Your task to perform on an android device: Go to accessibility settings Image 0: 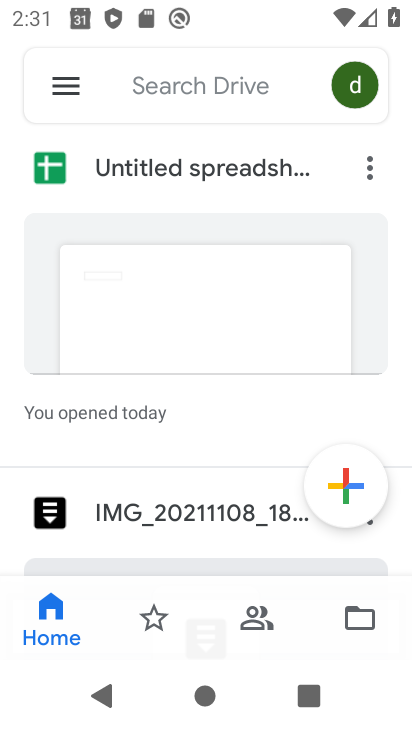
Step 0: press home button
Your task to perform on an android device: Go to accessibility settings Image 1: 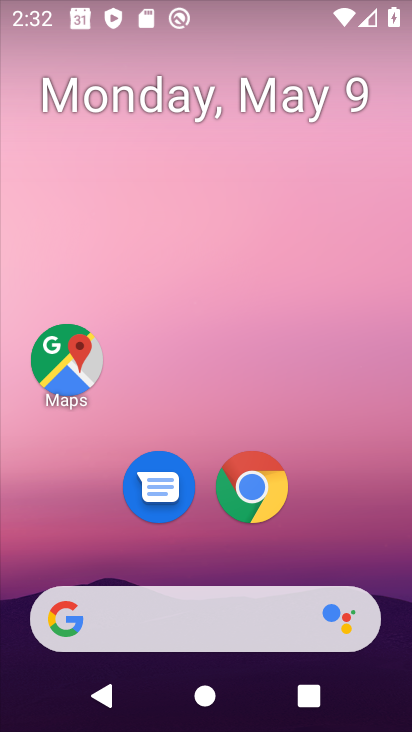
Step 1: drag from (289, 545) to (302, 0)
Your task to perform on an android device: Go to accessibility settings Image 2: 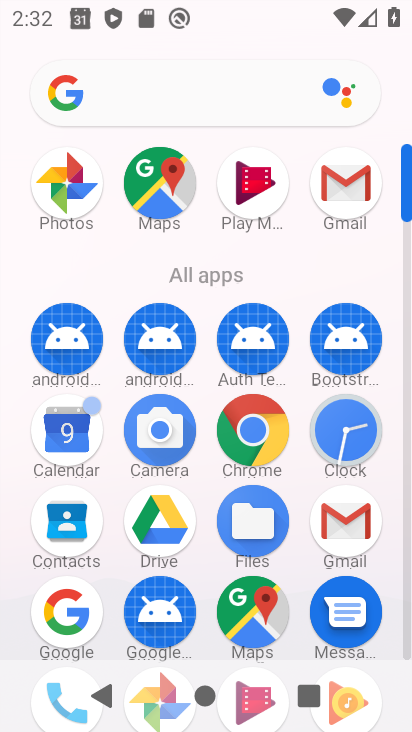
Step 2: drag from (303, 555) to (302, 177)
Your task to perform on an android device: Go to accessibility settings Image 3: 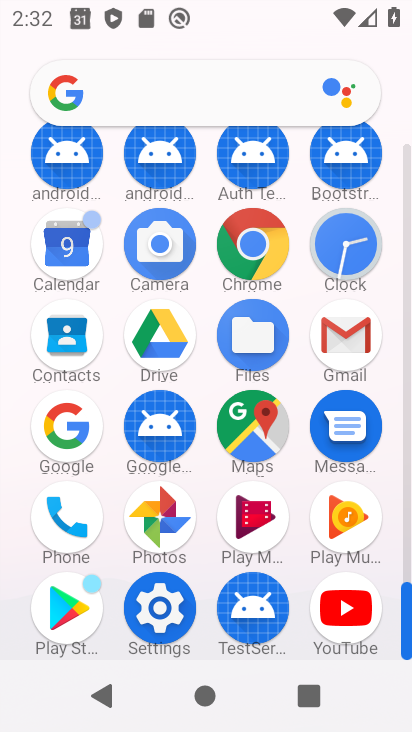
Step 3: click (169, 611)
Your task to perform on an android device: Go to accessibility settings Image 4: 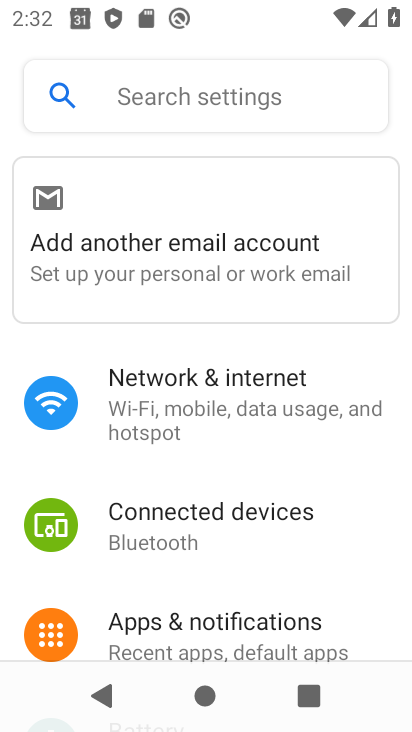
Step 4: drag from (295, 609) to (288, 449)
Your task to perform on an android device: Go to accessibility settings Image 5: 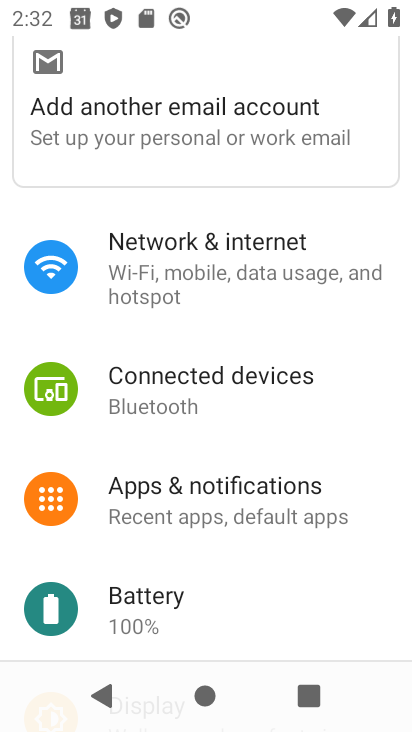
Step 5: drag from (218, 585) to (220, 433)
Your task to perform on an android device: Go to accessibility settings Image 6: 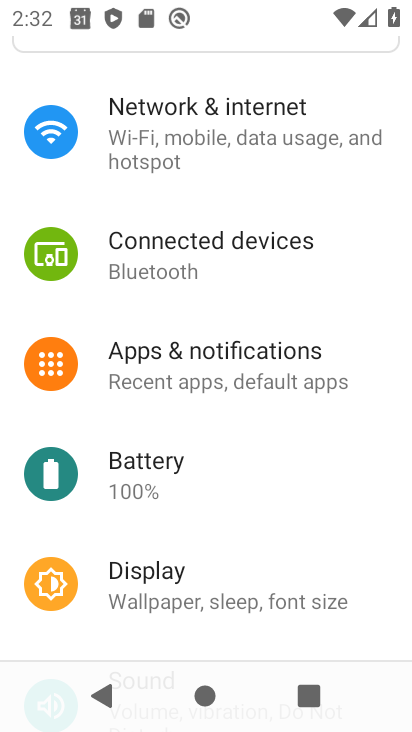
Step 6: drag from (189, 553) to (201, 466)
Your task to perform on an android device: Go to accessibility settings Image 7: 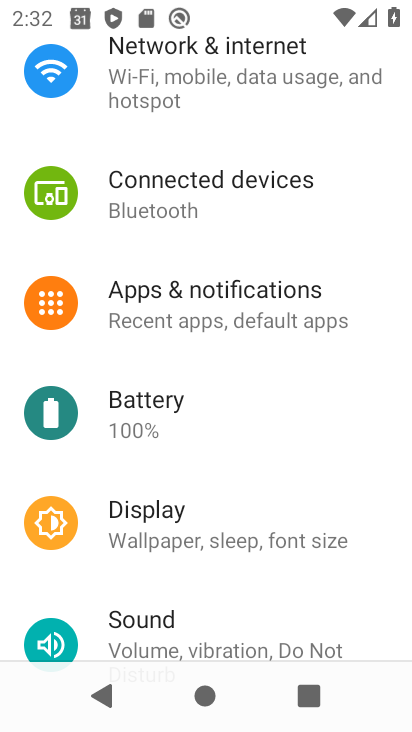
Step 7: drag from (210, 546) to (249, 366)
Your task to perform on an android device: Go to accessibility settings Image 8: 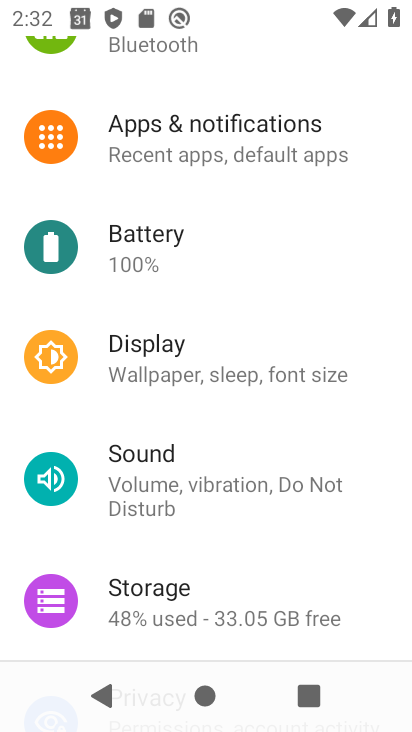
Step 8: drag from (250, 568) to (258, 455)
Your task to perform on an android device: Go to accessibility settings Image 9: 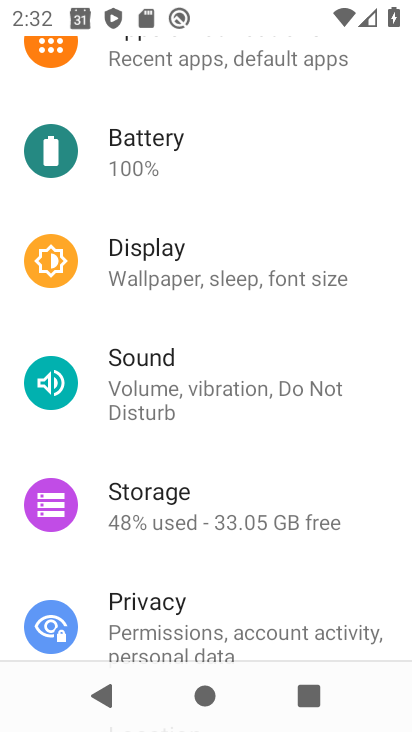
Step 9: drag from (278, 560) to (277, 457)
Your task to perform on an android device: Go to accessibility settings Image 10: 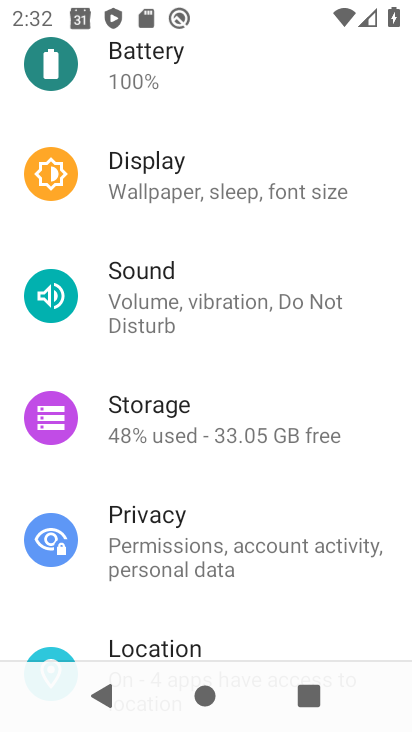
Step 10: drag from (252, 579) to (276, 437)
Your task to perform on an android device: Go to accessibility settings Image 11: 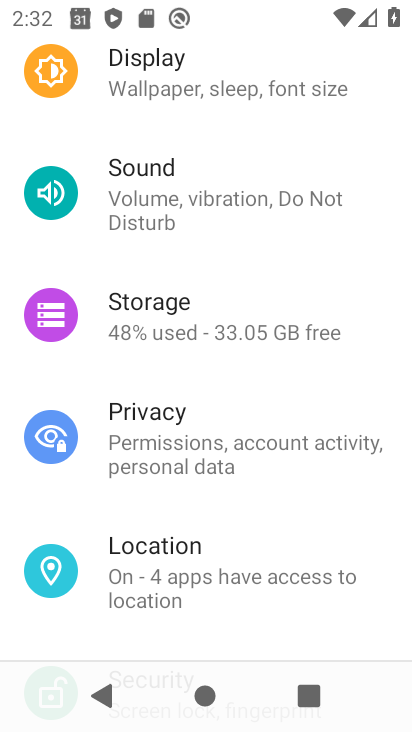
Step 11: drag from (207, 582) to (224, 473)
Your task to perform on an android device: Go to accessibility settings Image 12: 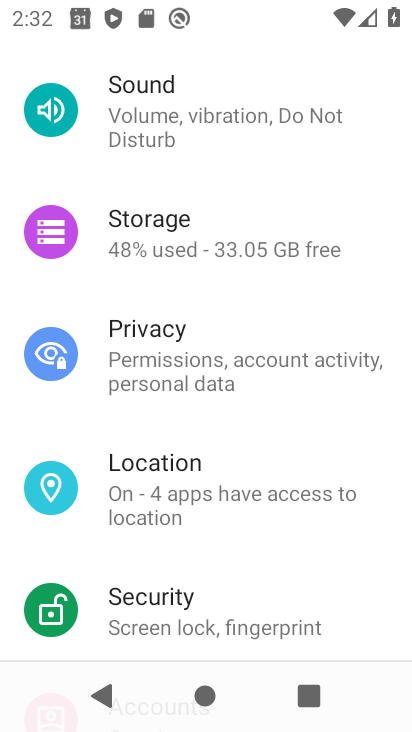
Step 12: drag from (215, 576) to (222, 492)
Your task to perform on an android device: Go to accessibility settings Image 13: 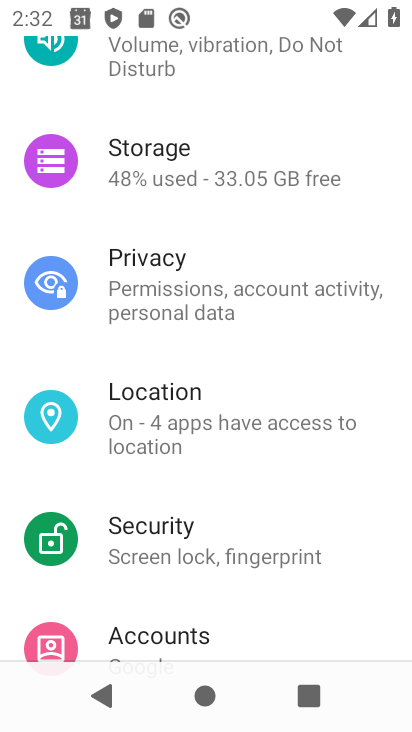
Step 13: drag from (211, 588) to (246, 448)
Your task to perform on an android device: Go to accessibility settings Image 14: 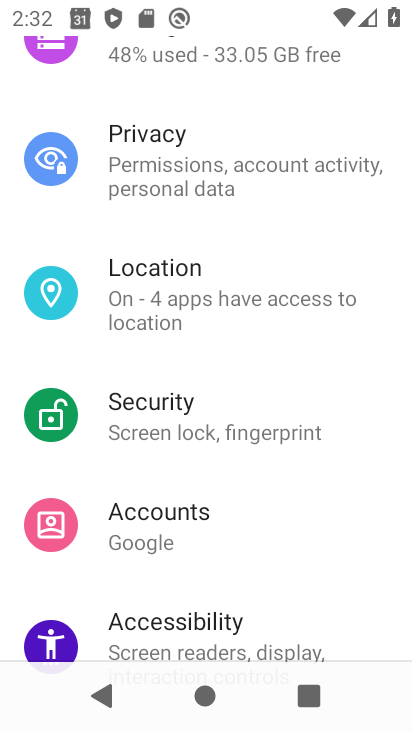
Step 14: click (190, 622)
Your task to perform on an android device: Go to accessibility settings Image 15: 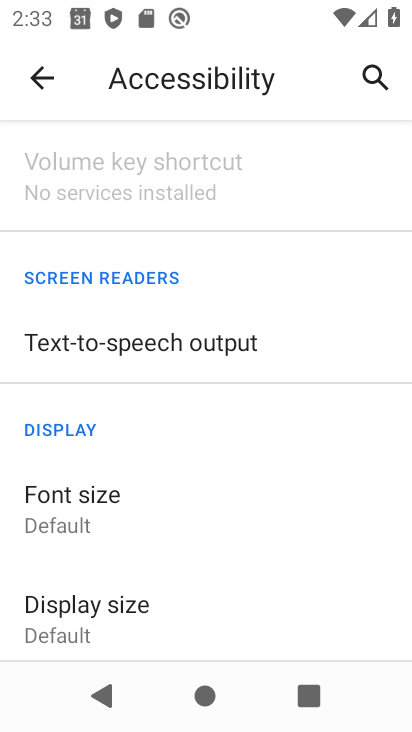
Step 15: task complete